Your task to perform on an android device: What is the news today? Image 0: 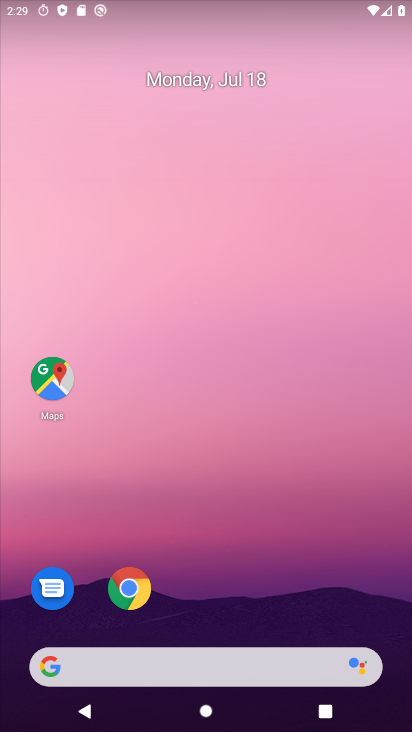
Step 0: drag from (155, 529) to (181, 19)
Your task to perform on an android device: What is the news today? Image 1: 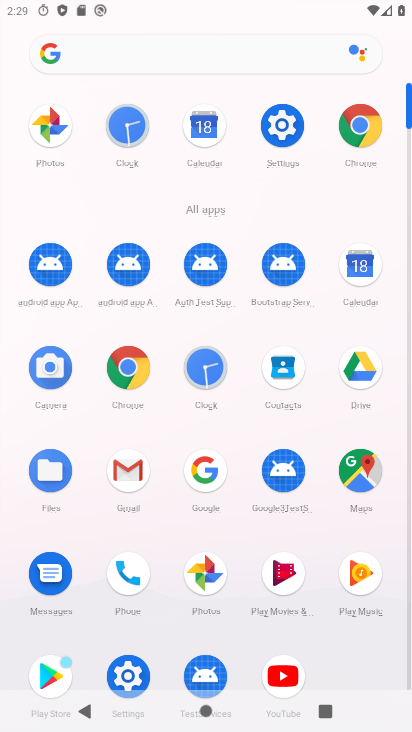
Step 1: click (364, 117)
Your task to perform on an android device: What is the news today? Image 2: 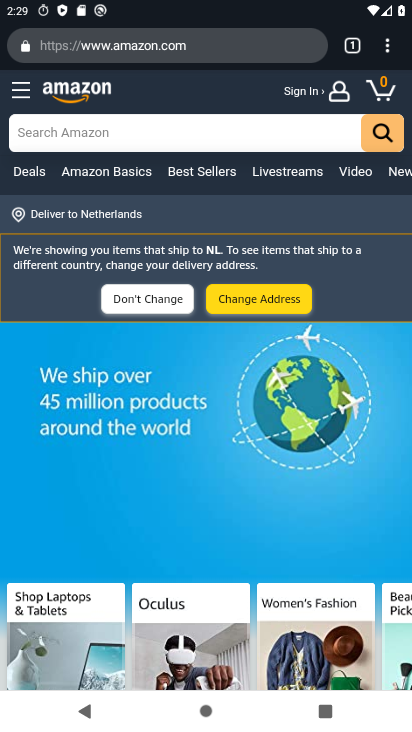
Step 2: task complete